Your task to perform on an android device: toggle translation in the chrome app Image 0: 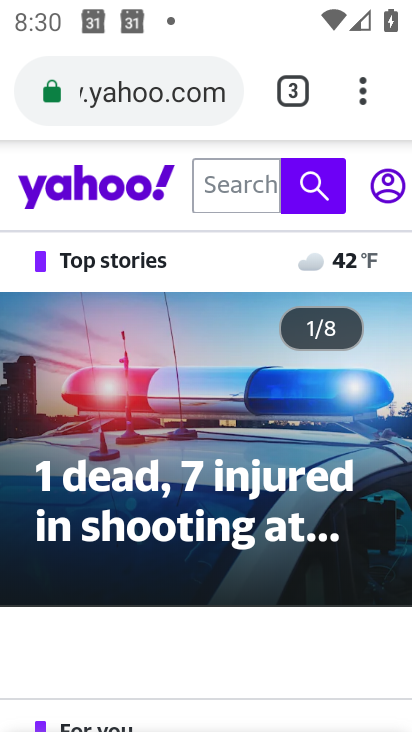
Step 0: press home button
Your task to perform on an android device: toggle translation in the chrome app Image 1: 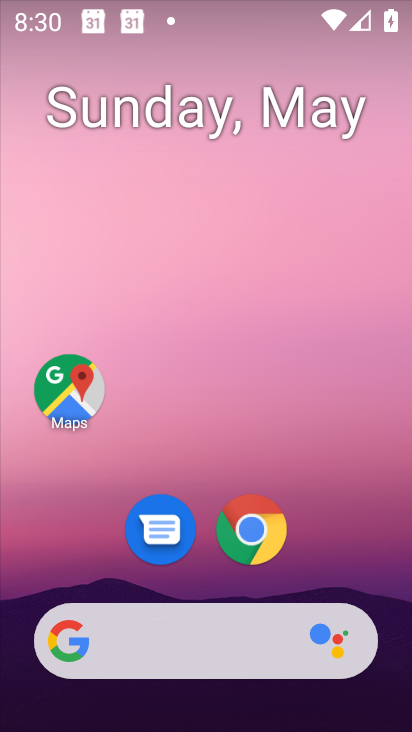
Step 1: drag from (347, 538) to (273, 74)
Your task to perform on an android device: toggle translation in the chrome app Image 2: 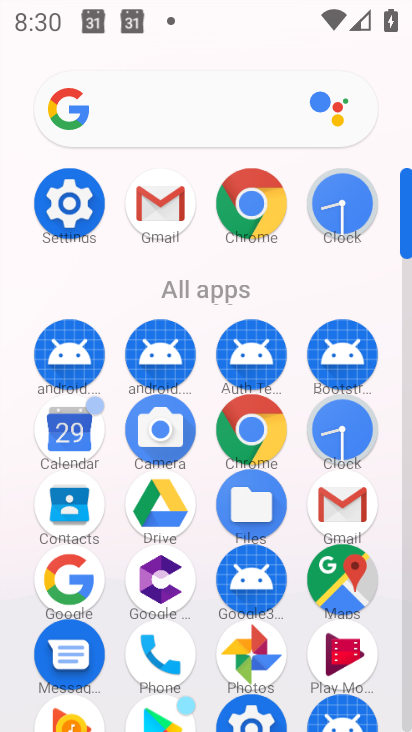
Step 2: click (77, 258)
Your task to perform on an android device: toggle translation in the chrome app Image 3: 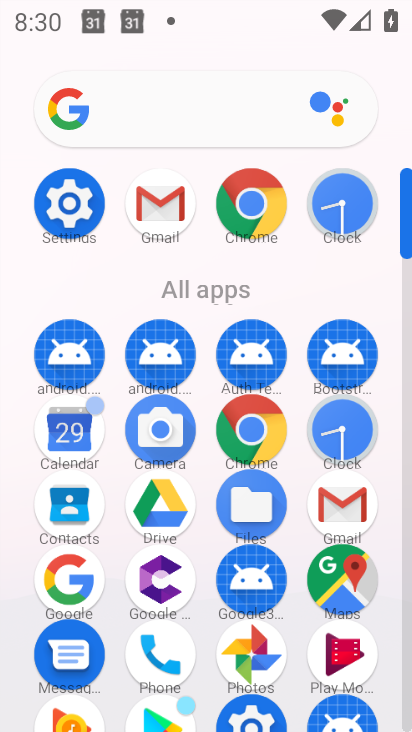
Step 3: click (79, 205)
Your task to perform on an android device: toggle translation in the chrome app Image 4: 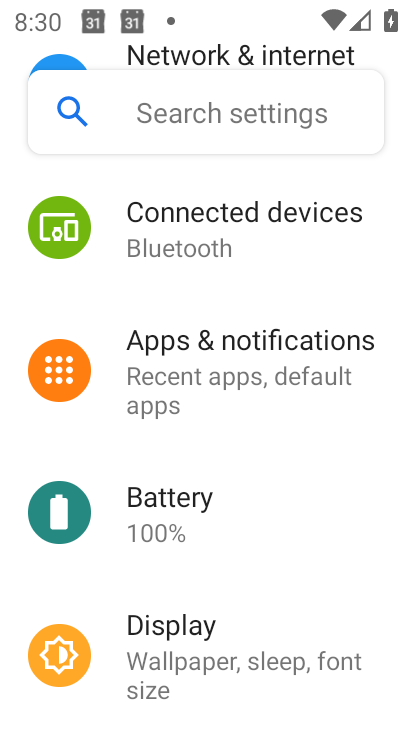
Step 4: task complete